Your task to perform on an android device: move a message to another label in the gmail app Image 0: 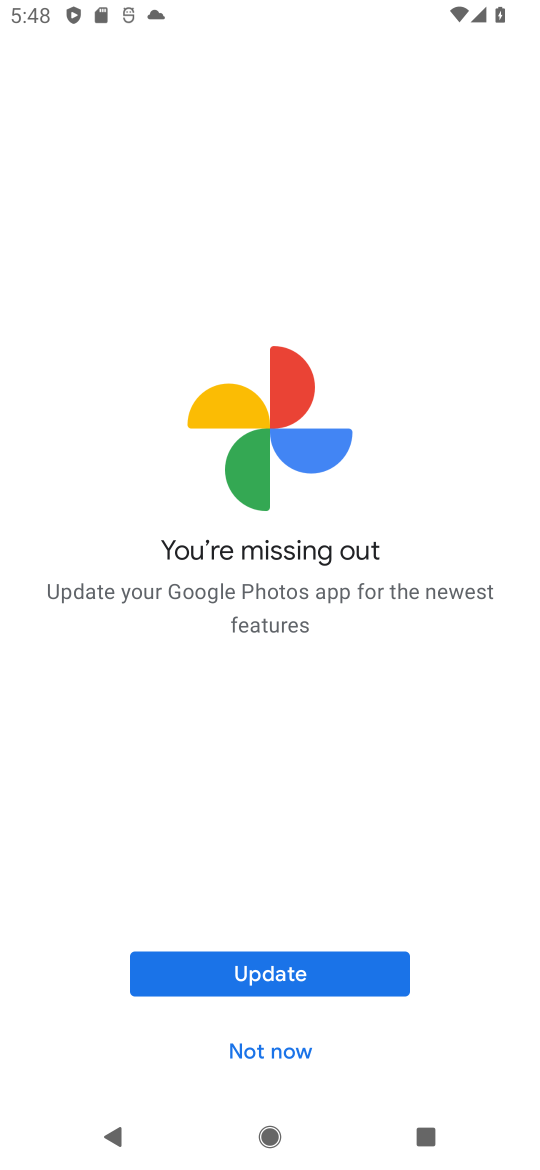
Step 0: press home button
Your task to perform on an android device: move a message to another label in the gmail app Image 1: 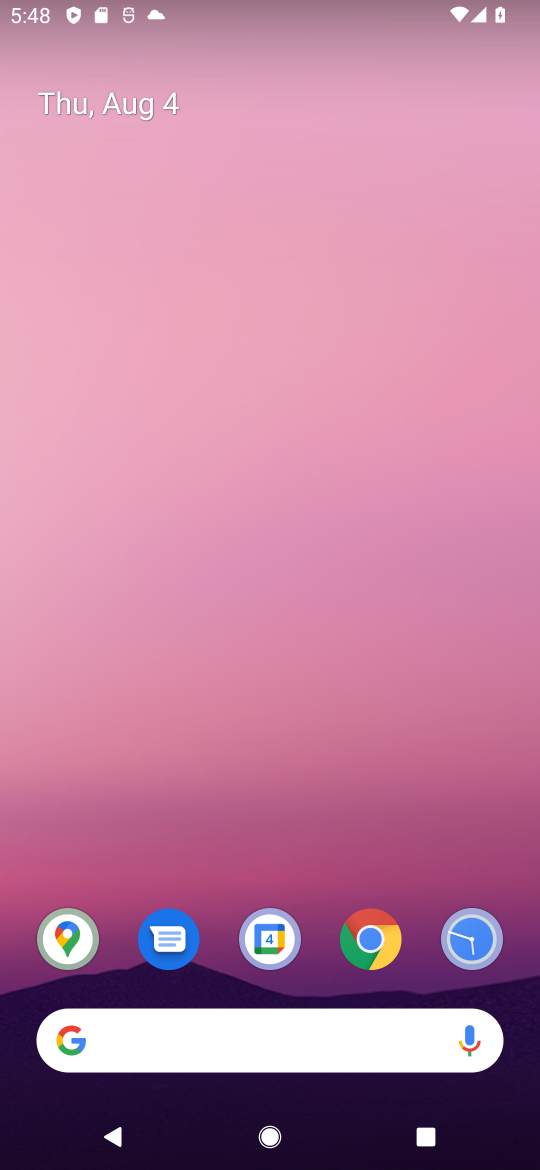
Step 1: drag from (288, 1016) to (332, 272)
Your task to perform on an android device: move a message to another label in the gmail app Image 2: 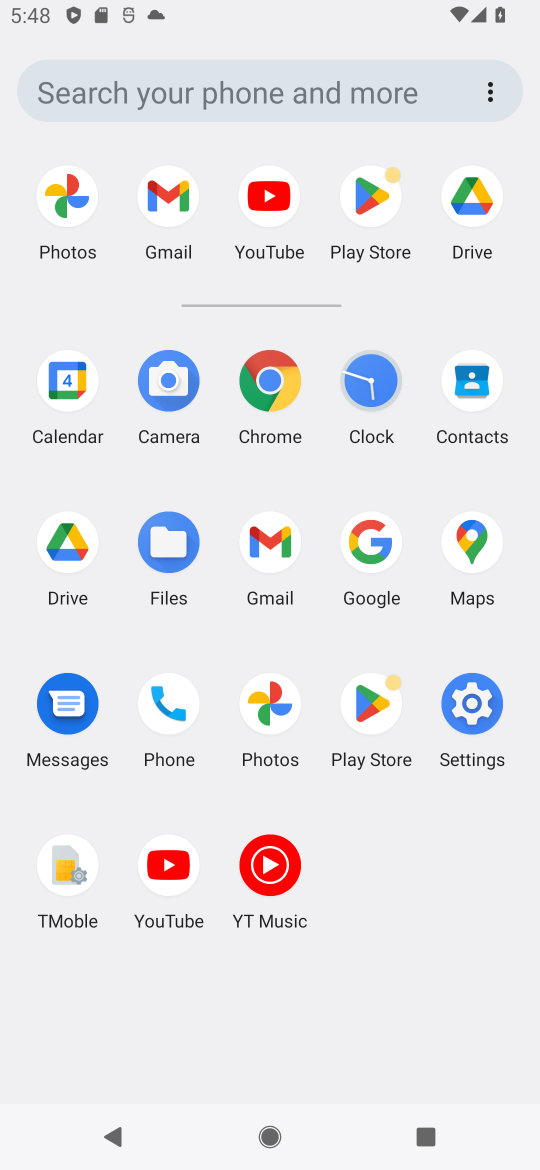
Step 2: click (270, 552)
Your task to perform on an android device: move a message to another label in the gmail app Image 3: 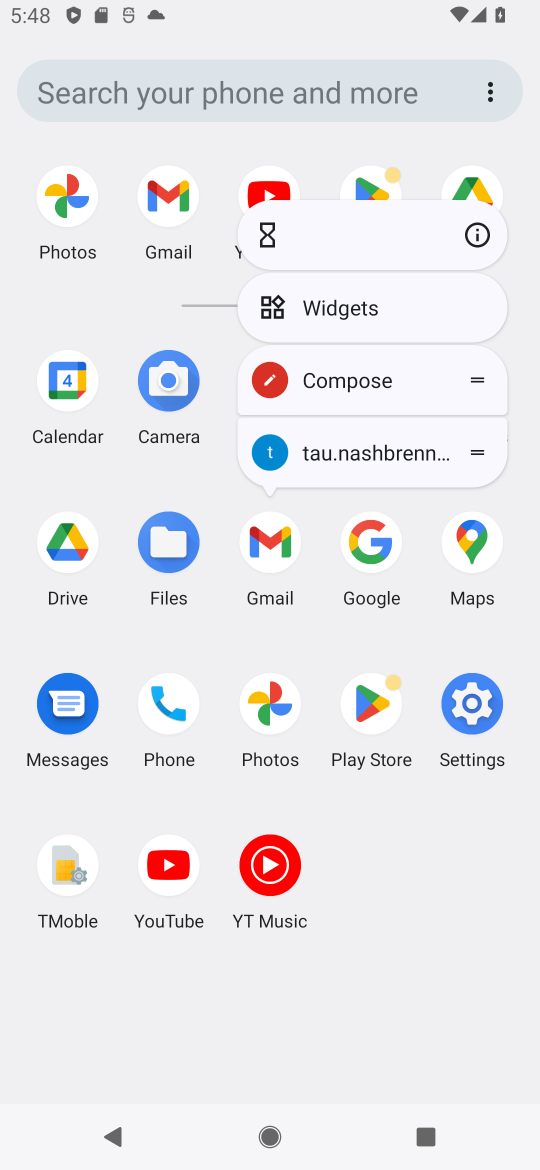
Step 3: click (269, 539)
Your task to perform on an android device: move a message to another label in the gmail app Image 4: 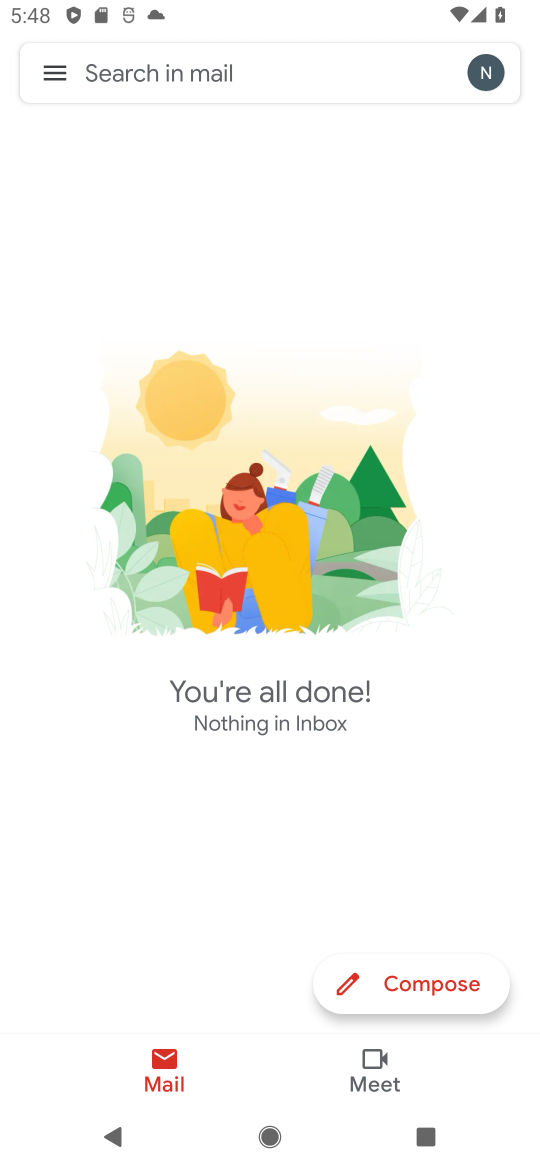
Step 4: task complete